Your task to perform on an android device: Open Chrome and go to settings Image 0: 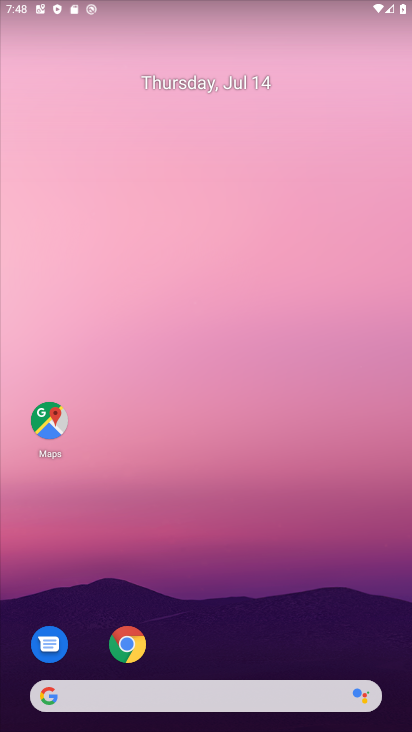
Step 0: click (126, 649)
Your task to perform on an android device: Open Chrome and go to settings Image 1: 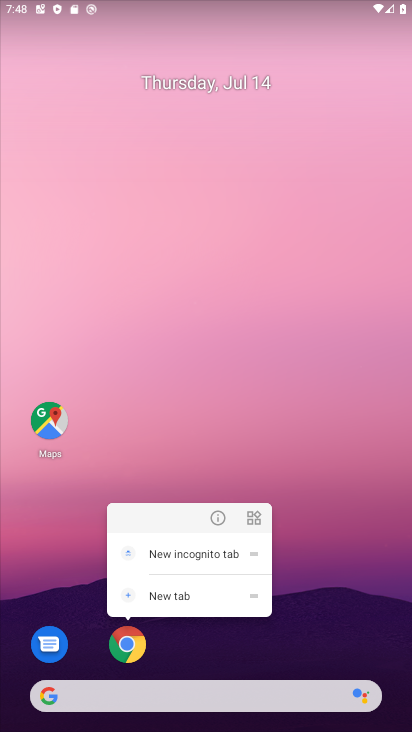
Step 1: click (125, 646)
Your task to perform on an android device: Open Chrome and go to settings Image 2: 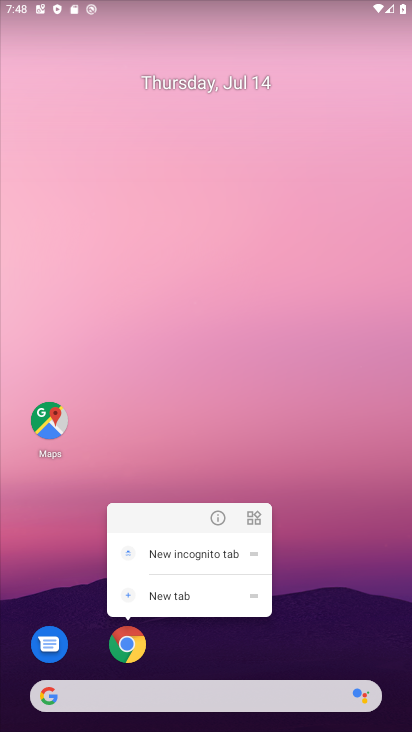
Step 2: click (125, 646)
Your task to perform on an android device: Open Chrome and go to settings Image 3: 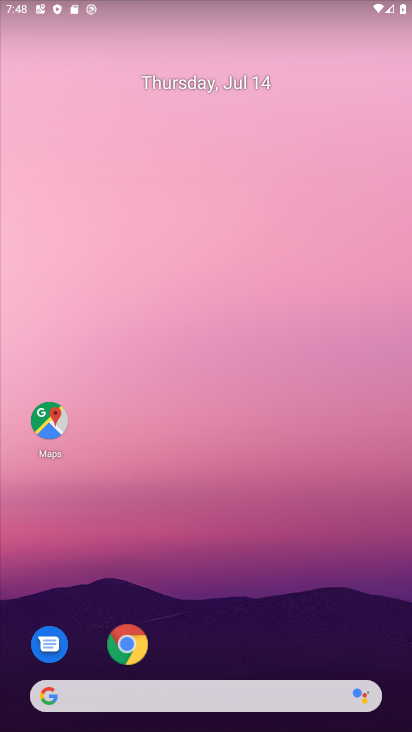
Step 3: click (131, 642)
Your task to perform on an android device: Open Chrome and go to settings Image 4: 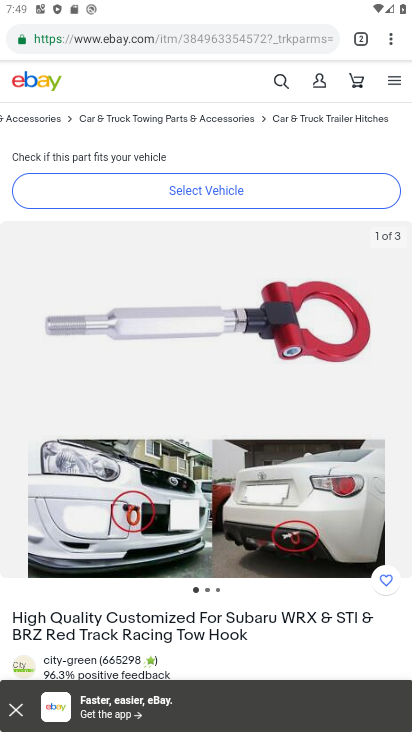
Step 4: task complete